Your task to perform on an android device: toggle data saver in the chrome app Image 0: 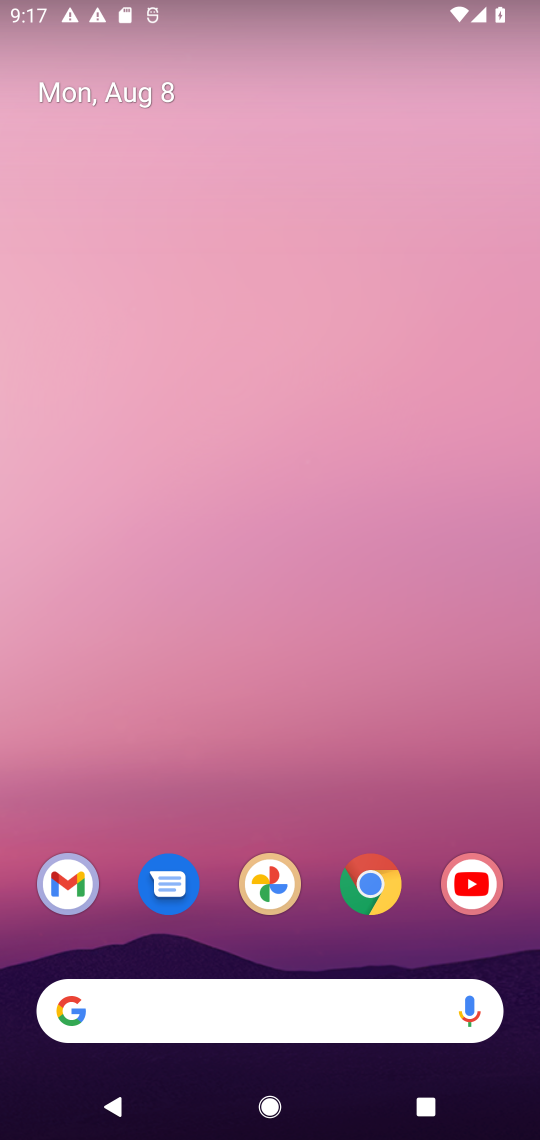
Step 0: click (372, 887)
Your task to perform on an android device: toggle data saver in the chrome app Image 1: 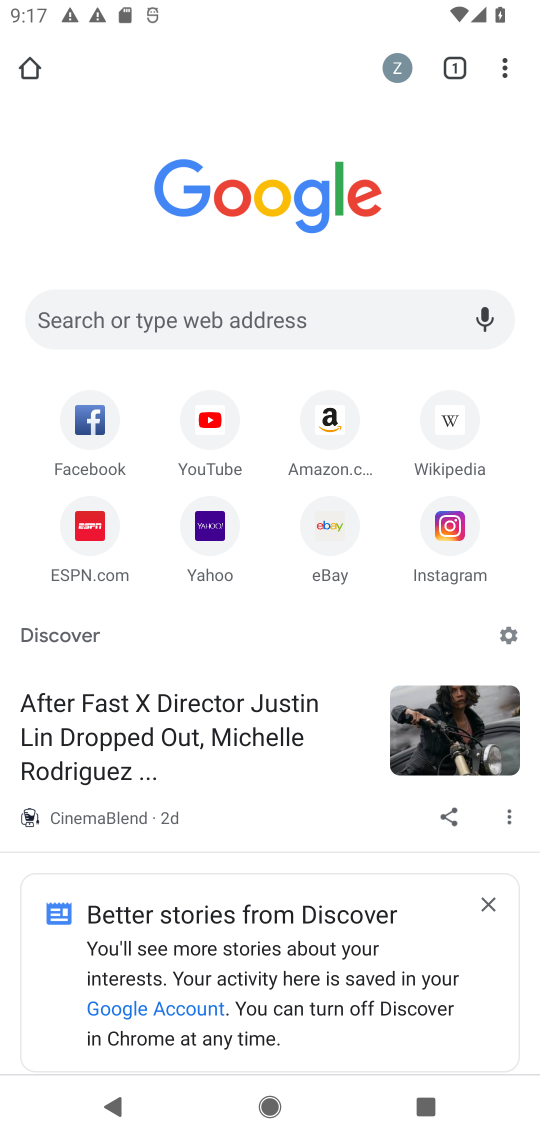
Step 1: click (511, 58)
Your task to perform on an android device: toggle data saver in the chrome app Image 2: 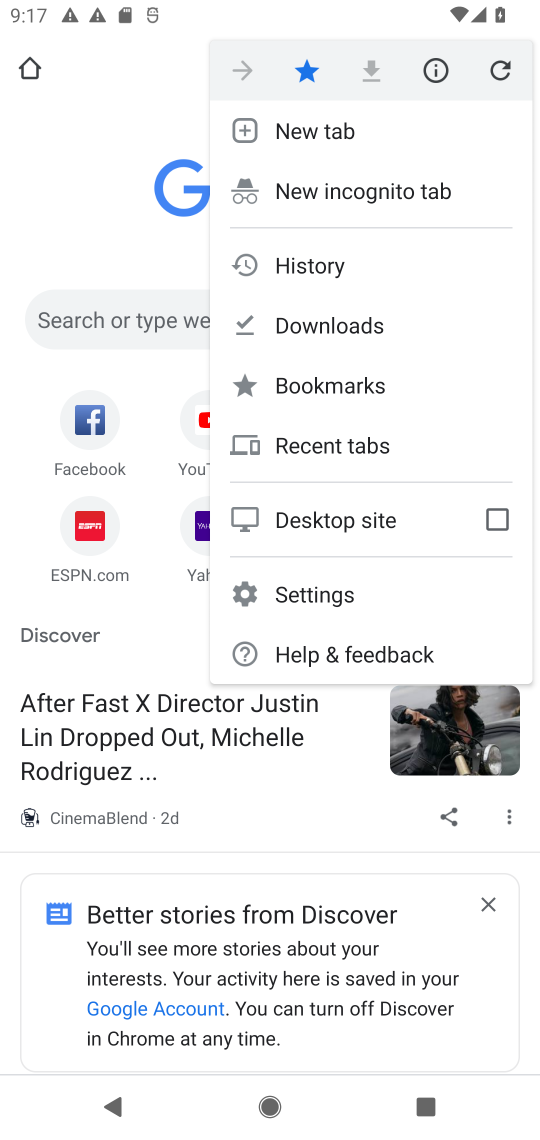
Step 2: click (329, 592)
Your task to perform on an android device: toggle data saver in the chrome app Image 3: 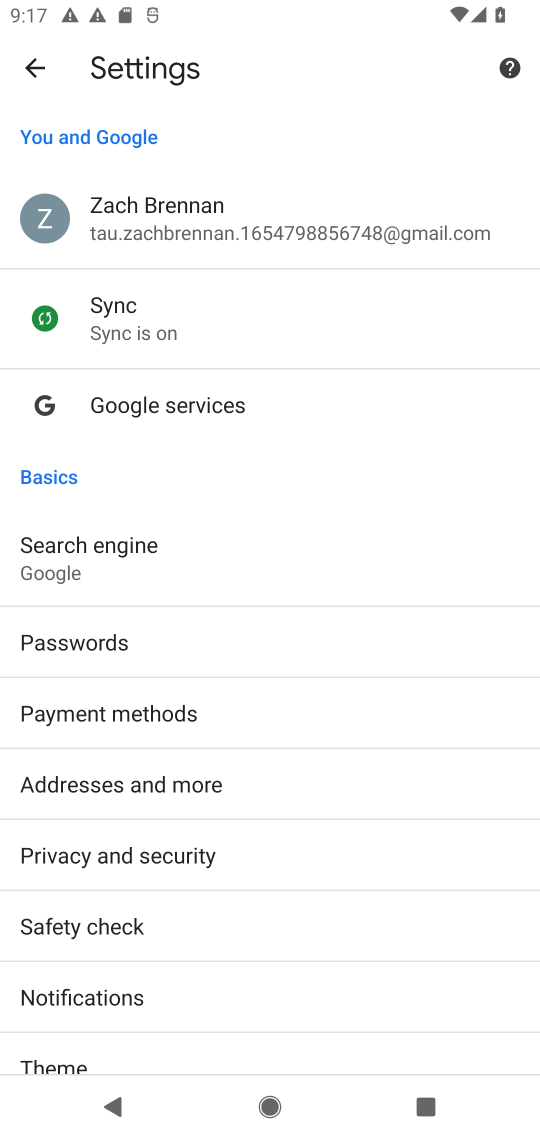
Step 3: drag from (314, 993) to (294, 503)
Your task to perform on an android device: toggle data saver in the chrome app Image 4: 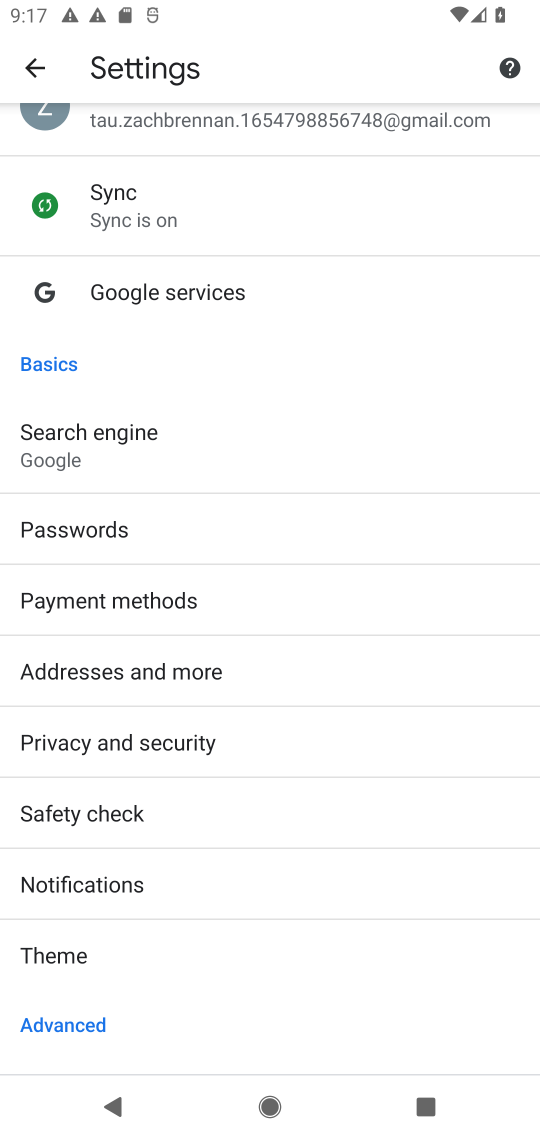
Step 4: drag from (355, 833) to (368, 357)
Your task to perform on an android device: toggle data saver in the chrome app Image 5: 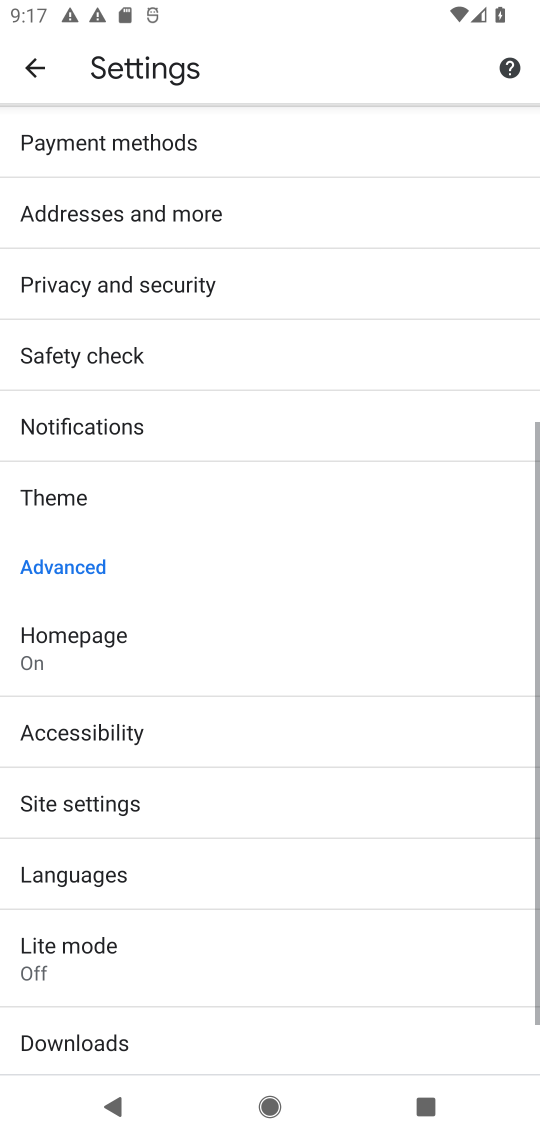
Step 5: click (95, 937)
Your task to perform on an android device: toggle data saver in the chrome app Image 6: 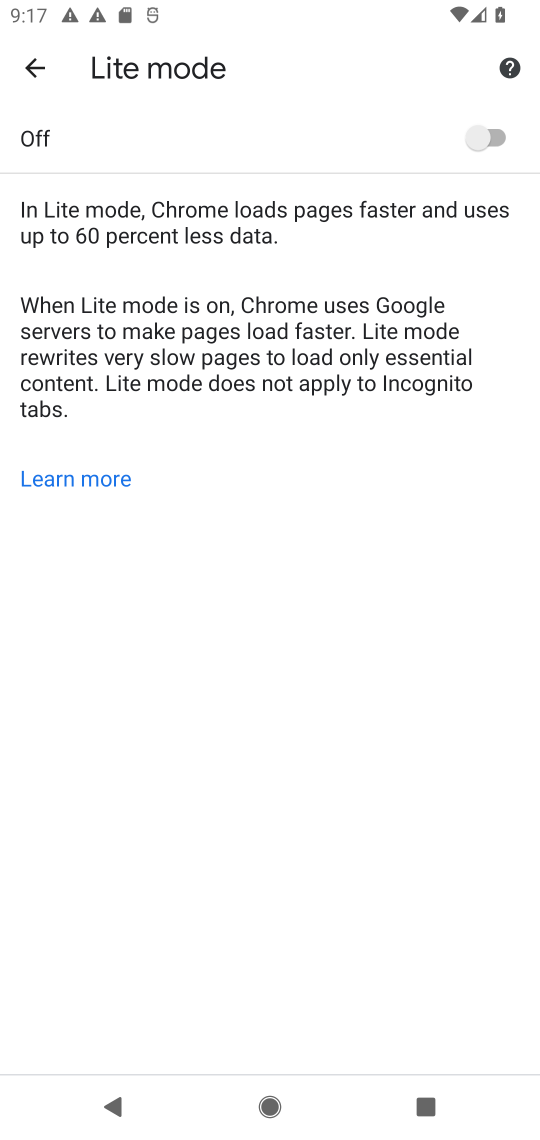
Step 6: click (483, 134)
Your task to perform on an android device: toggle data saver in the chrome app Image 7: 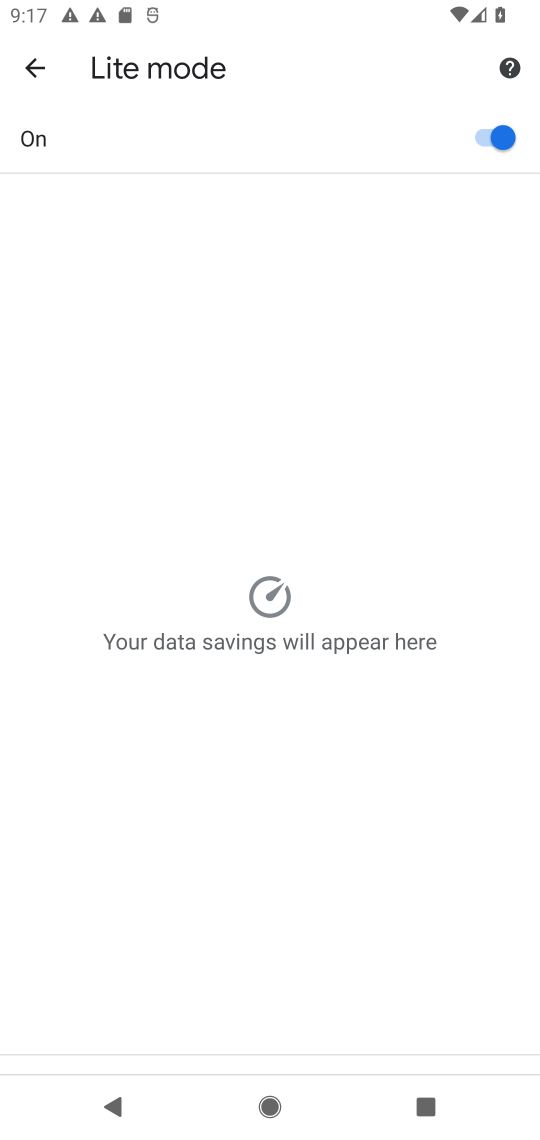
Step 7: task complete